Your task to perform on an android device: toggle sleep mode Image 0: 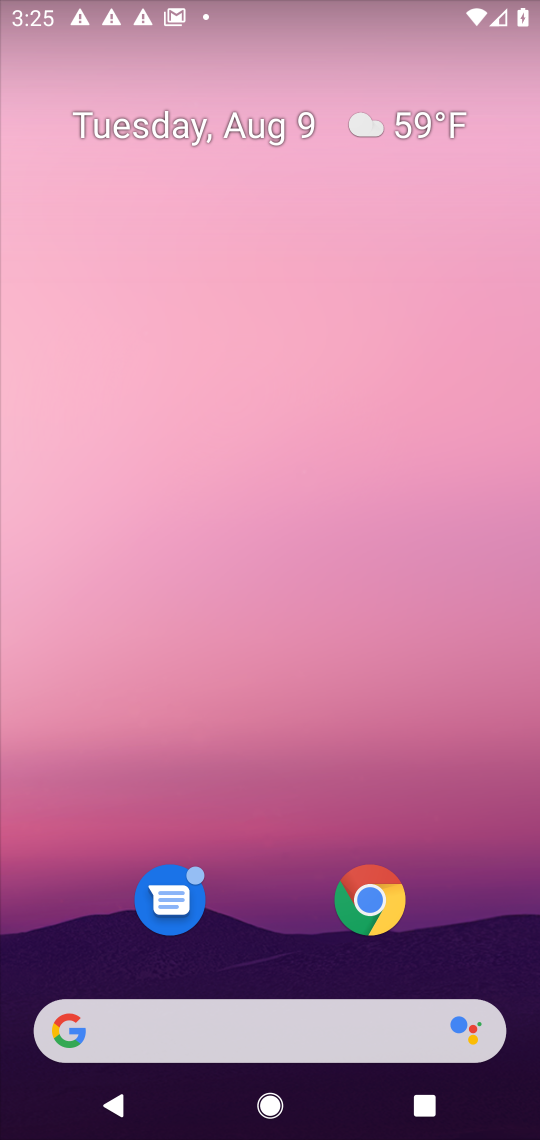
Step 0: drag from (459, 903) to (242, 5)
Your task to perform on an android device: toggle sleep mode Image 1: 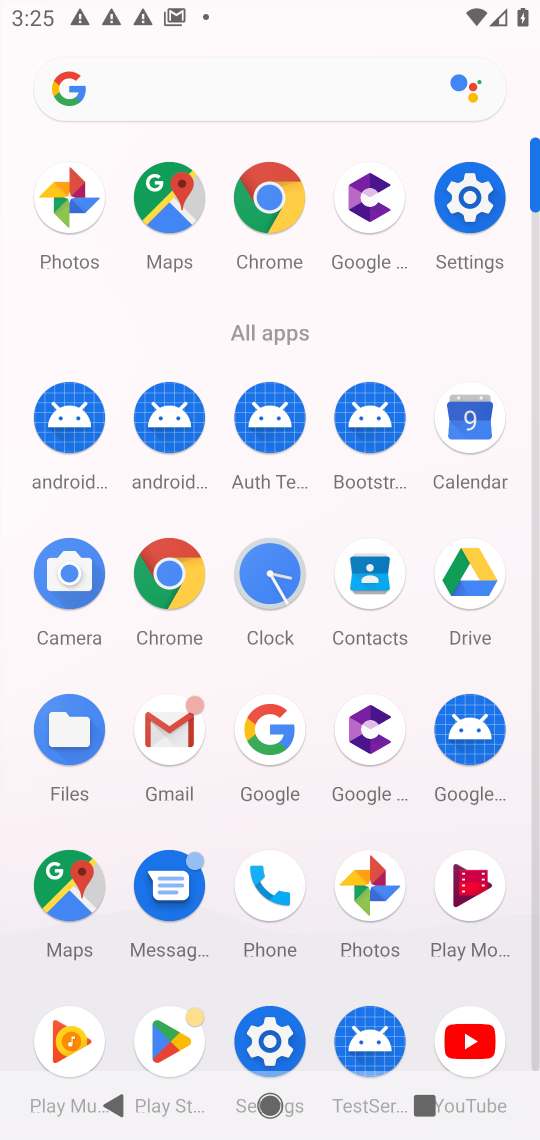
Step 1: click (472, 207)
Your task to perform on an android device: toggle sleep mode Image 2: 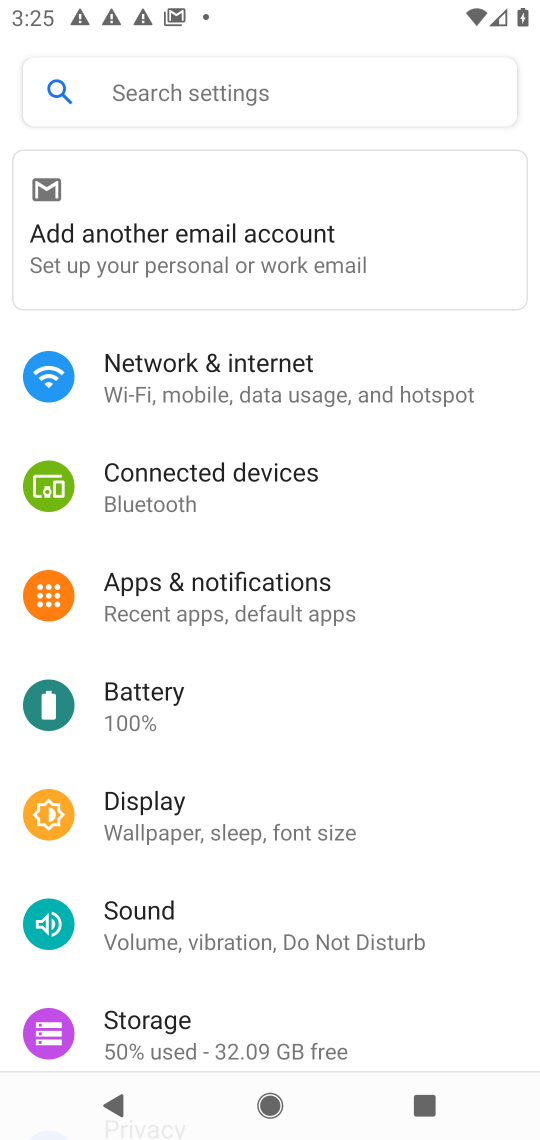
Step 2: click (238, 823)
Your task to perform on an android device: toggle sleep mode Image 3: 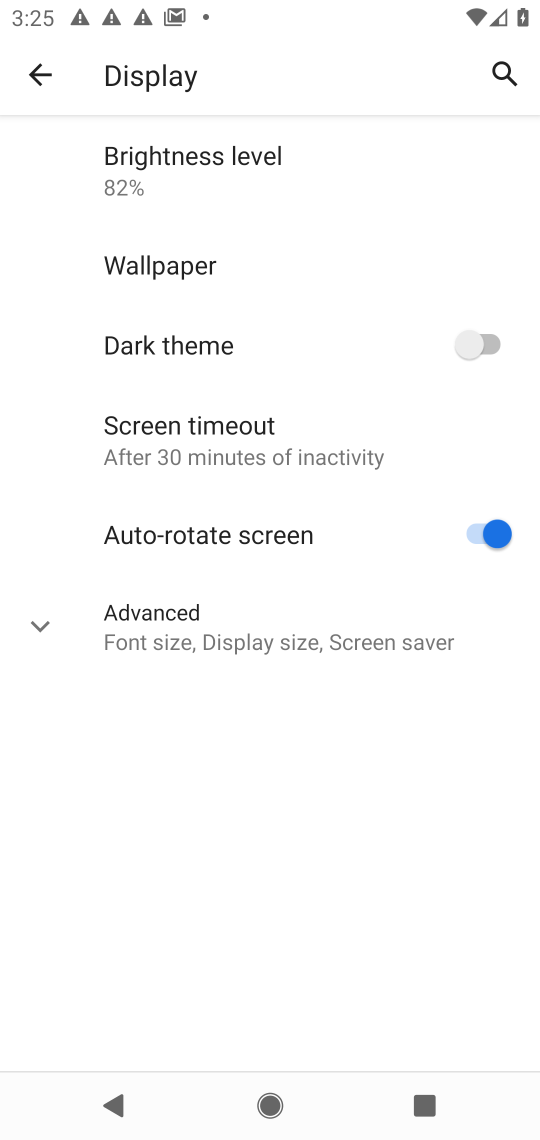
Step 3: click (207, 647)
Your task to perform on an android device: toggle sleep mode Image 4: 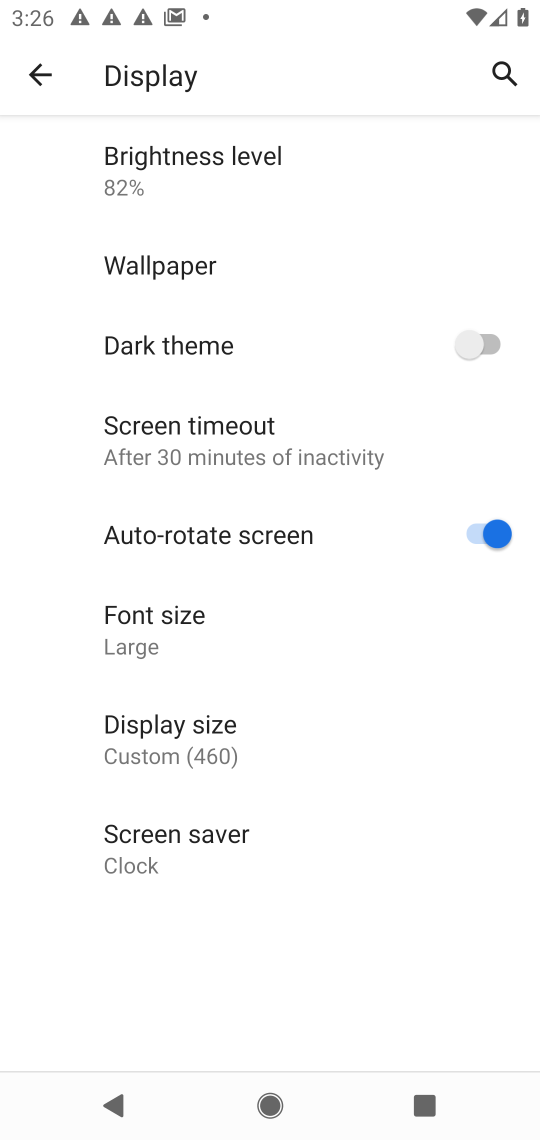
Step 4: task complete